Your task to perform on an android device: Open network settings Image 0: 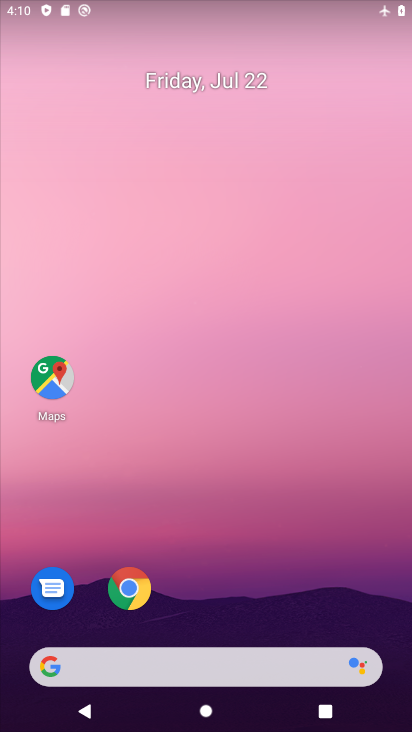
Step 0: drag from (186, 334) to (174, 244)
Your task to perform on an android device: Open network settings Image 1: 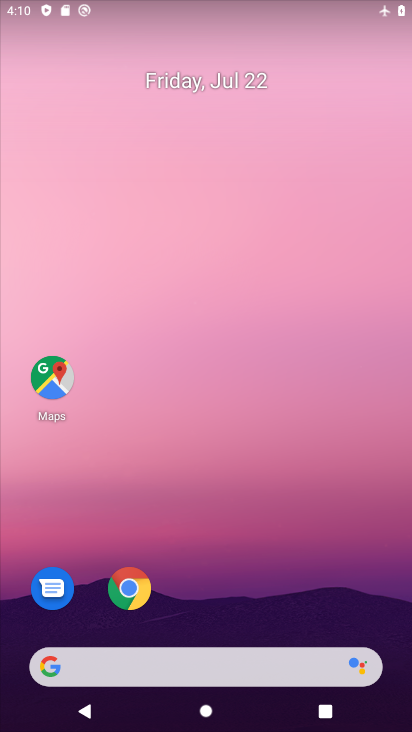
Step 1: drag from (241, 633) to (226, 136)
Your task to perform on an android device: Open network settings Image 2: 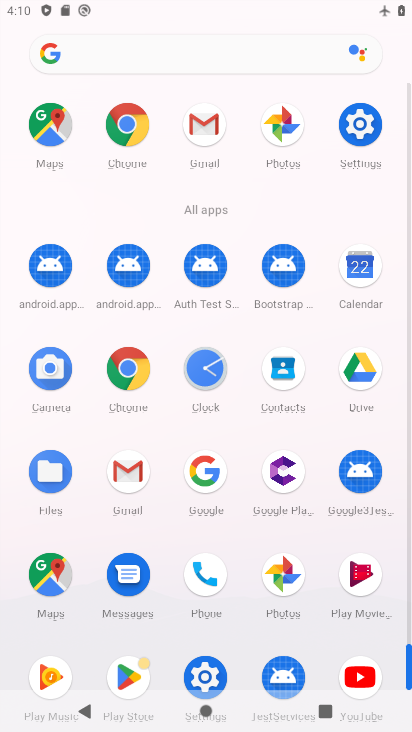
Step 2: click (366, 137)
Your task to perform on an android device: Open network settings Image 3: 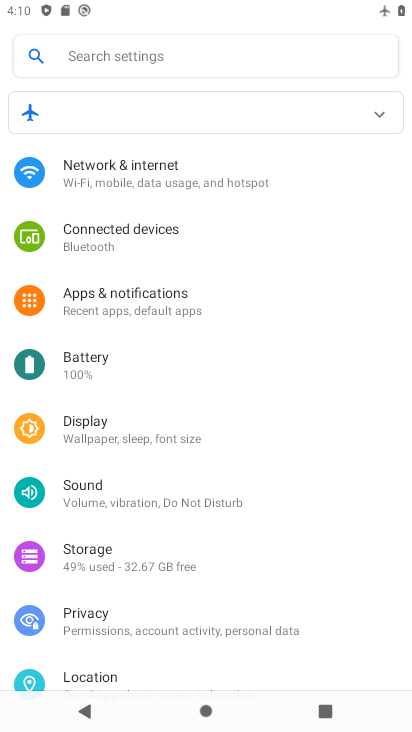
Step 3: click (270, 182)
Your task to perform on an android device: Open network settings Image 4: 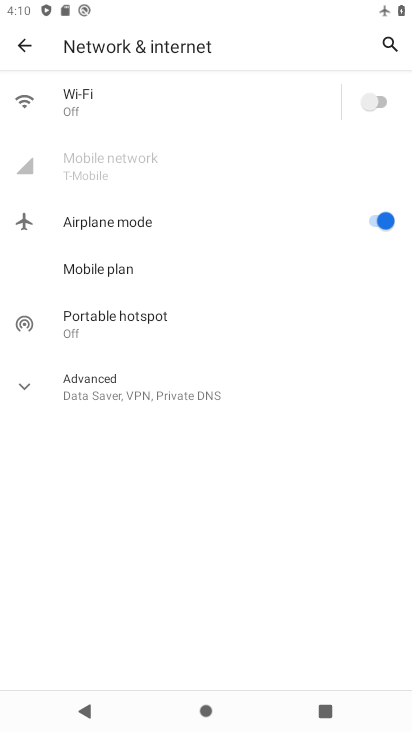
Step 4: task complete